Your task to perform on an android device: Go to display settings Image 0: 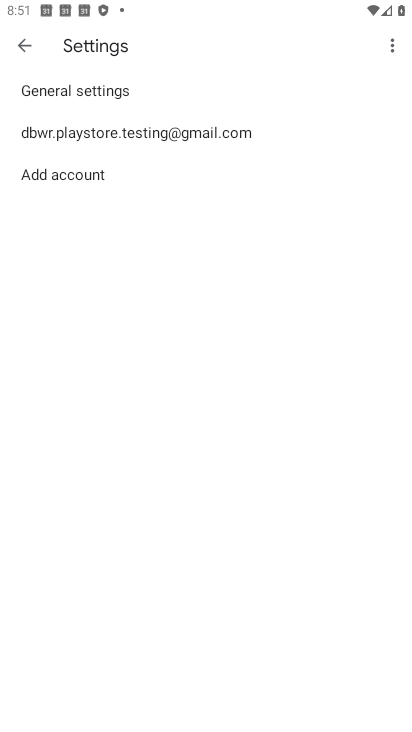
Step 0: press home button
Your task to perform on an android device: Go to display settings Image 1: 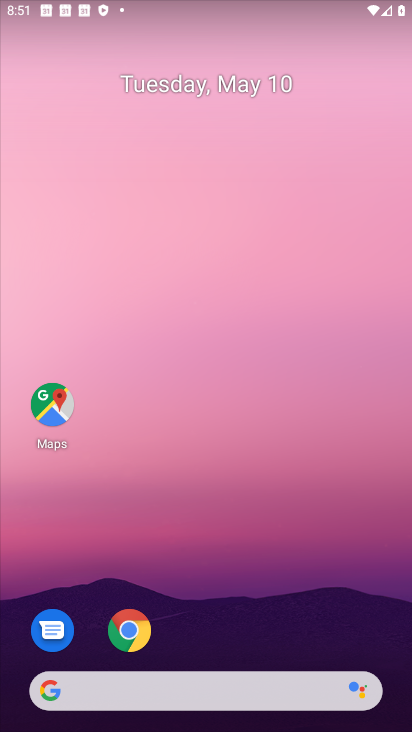
Step 1: drag from (166, 730) to (250, 220)
Your task to perform on an android device: Go to display settings Image 2: 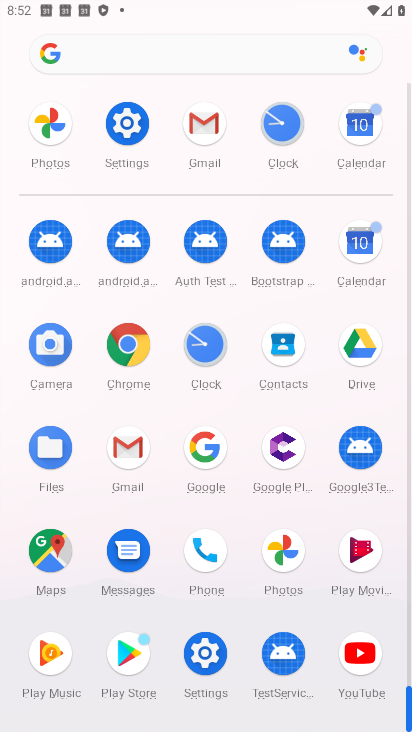
Step 2: click (115, 134)
Your task to perform on an android device: Go to display settings Image 3: 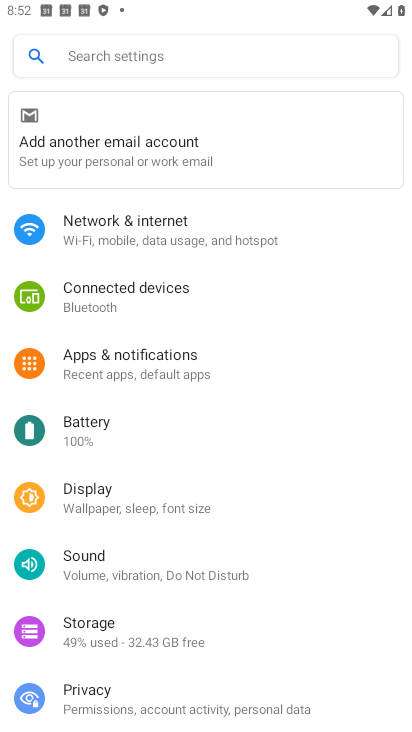
Step 3: click (142, 504)
Your task to perform on an android device: Go to display settings Image 4: 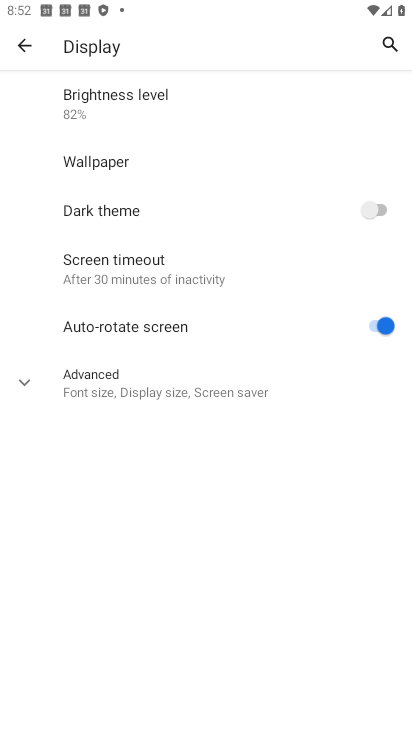
Step 4: task complete